Your task to perform on an android device: turn off location history Image 0: 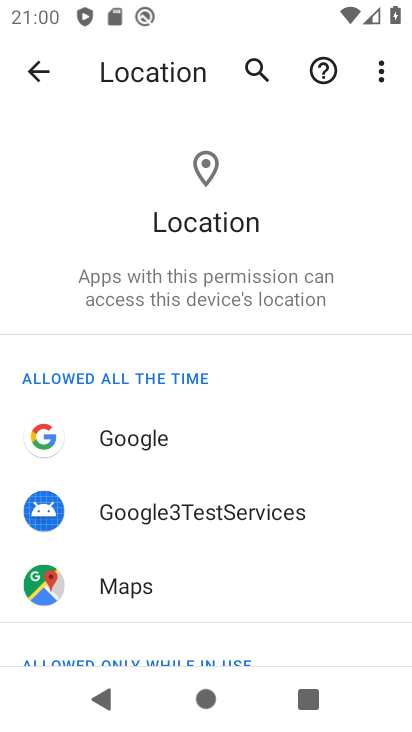
Step 0: press back button
Your task to perform on an android device: turn off location history Image 1: 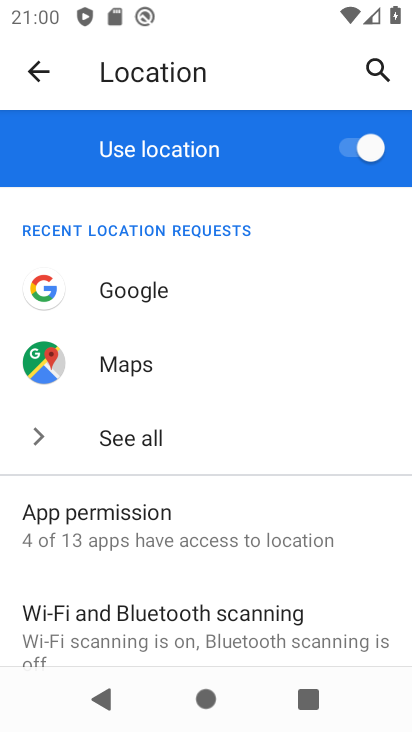
Step 1: press home button
Your task to perform on an android device: turn off location history Image 2: 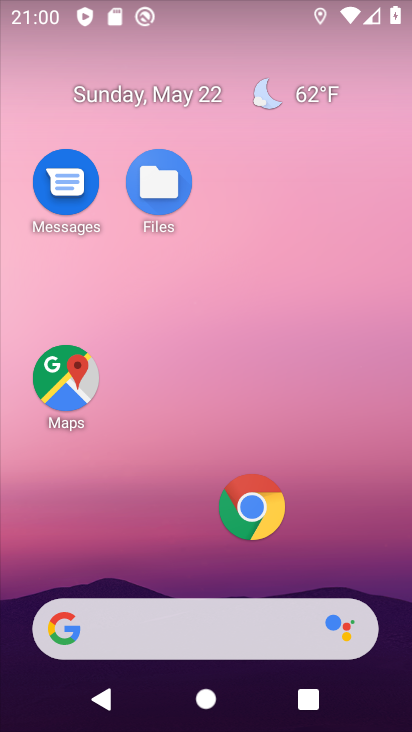
Step 2: drag from (205, 595) to (162, 6)
Your task to perform on an android device: turn off location history Image 3: 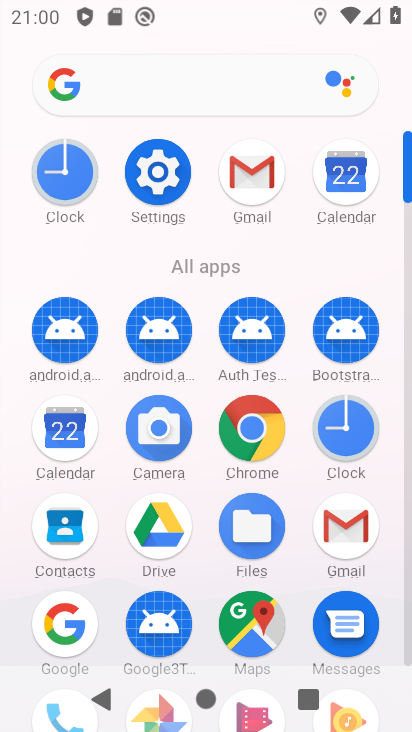
Step 3: click (160, 160)
Your task to perform on an android device: turn off location history Image 4: 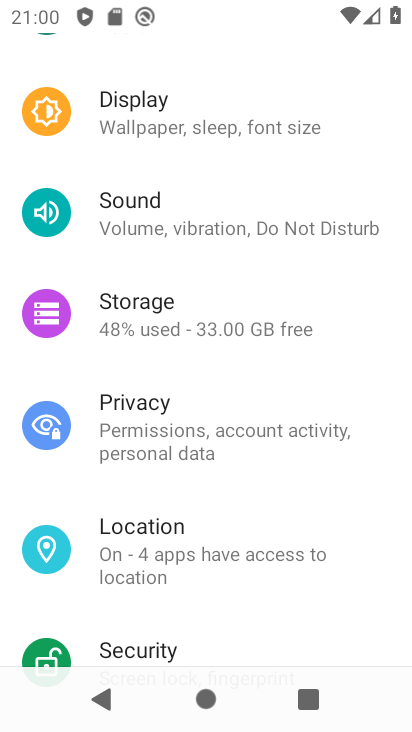
Step 4: click (167, 531)
Your task to perform on an android device: turn off location history Image 5: 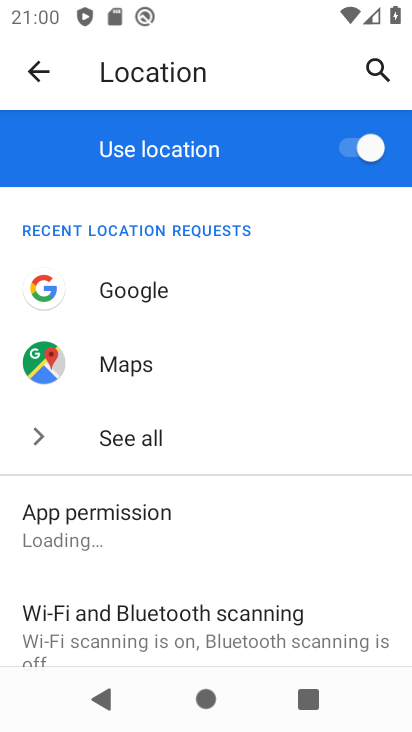
Step 5: drag from (214, 575) to (196, 316)
Your task to perform on an android device: turn off location history Image 6: 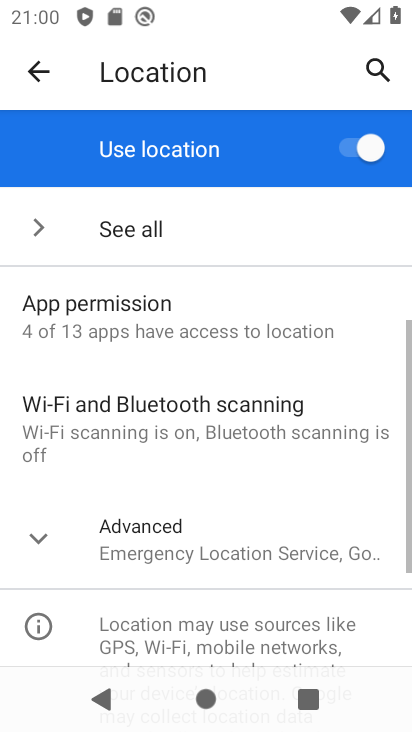
Step 6: click (150, 563)
Your task to perform on an android device: turn off location history Image 7: 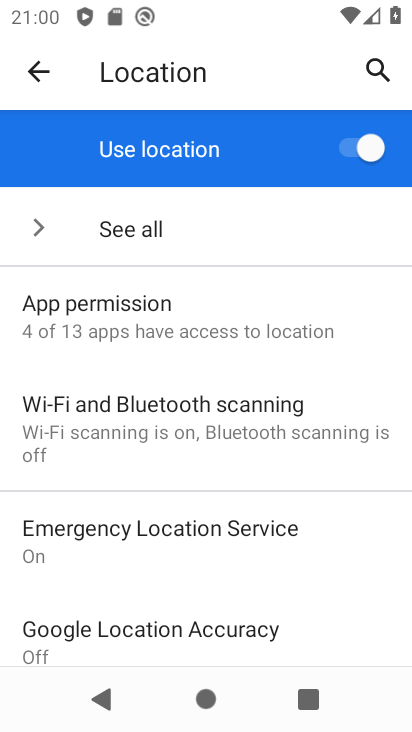
Step 7: drag from (150, 563) to (144, 140)
Your task to perform on an android device: turn off location history Image 8: 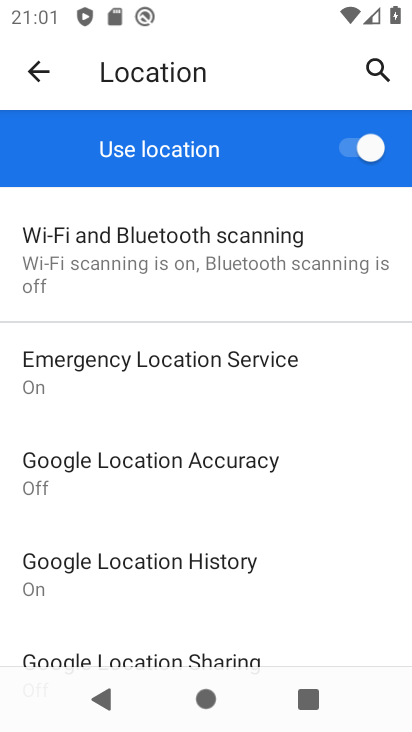
Step 8: click (161, 551)
Your task to perform on an android device: turn off location history Image 9: 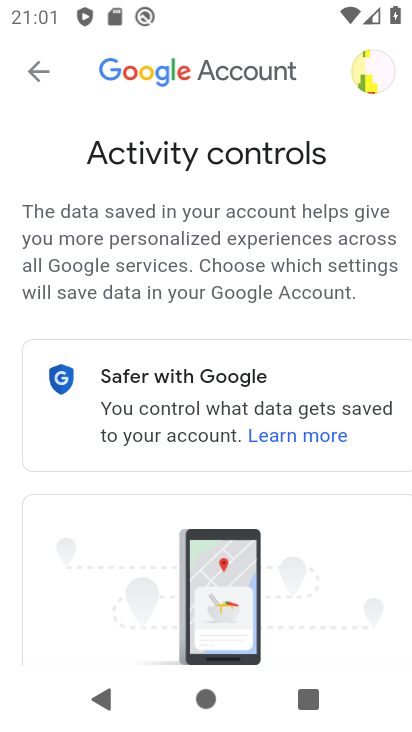
Step 9: drag from (161, 551) to (98, 44)
Your task to perform on an android device: turn off location history Image 10: 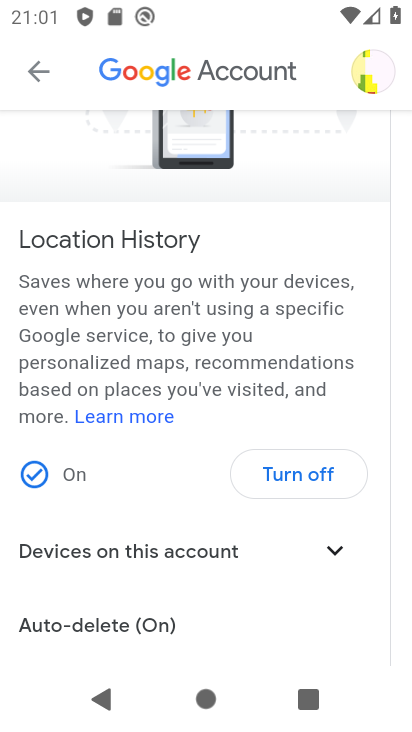
Step 10: click (294, 480)
Your task to perform on an android device: turn off location history Image 11: 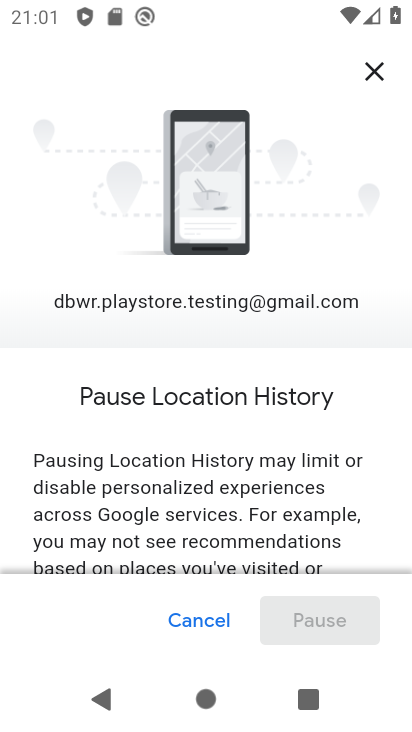
Step 11: drag from (264, 513) to (201, 202)
Your task to perform on an android device: turn off location history Image 12: 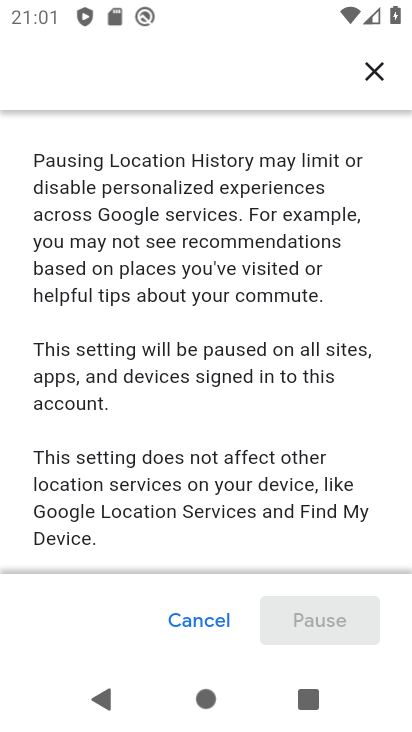
Step 12: drag from (229, 489) to (158, 21)
Your task to perform on an android device: turn off location history Image 13: 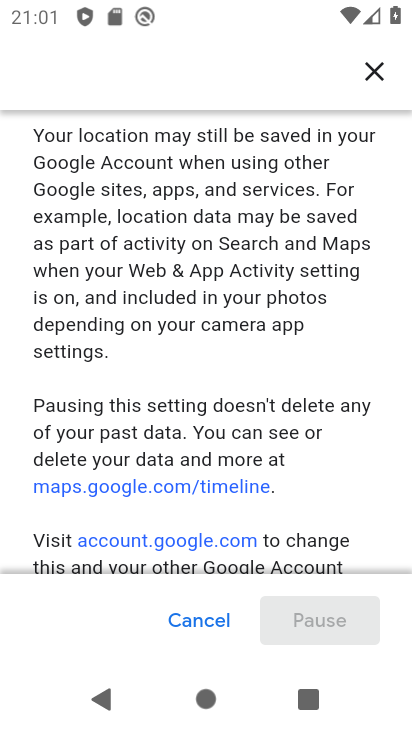
Step 13: drag from (310, 451) to (258, 88)
Your task to perform on an android device: turn off location history Image 14: 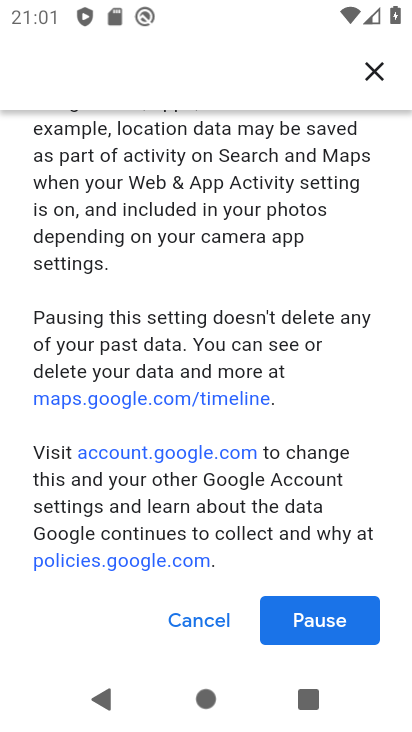
Step 14: click (308, 632)
Your task to perform on an android device: turn off location history Image 15: 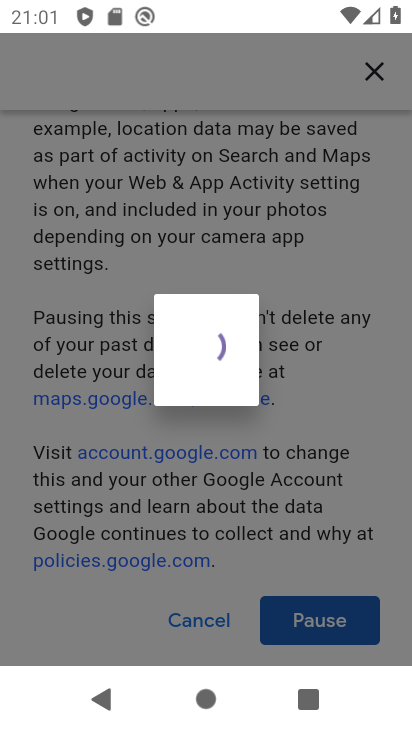
Step 15: task complete